Your task to perform on an android device: change notification settings in the gmail app Image 0: 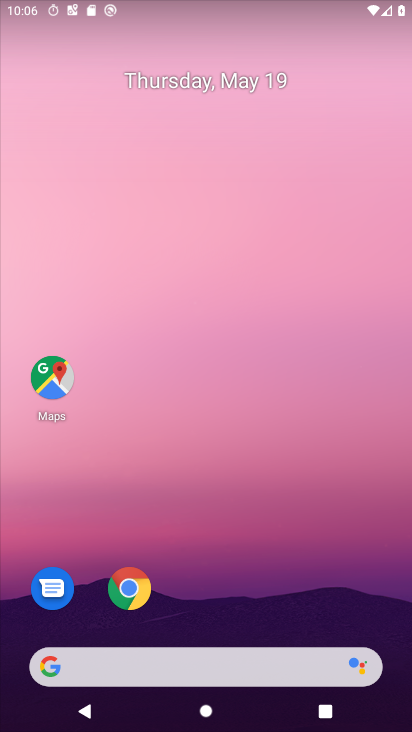
Step 0: press home button
Your task to perform on an android device: change notification settings in the gmail app Image 1: 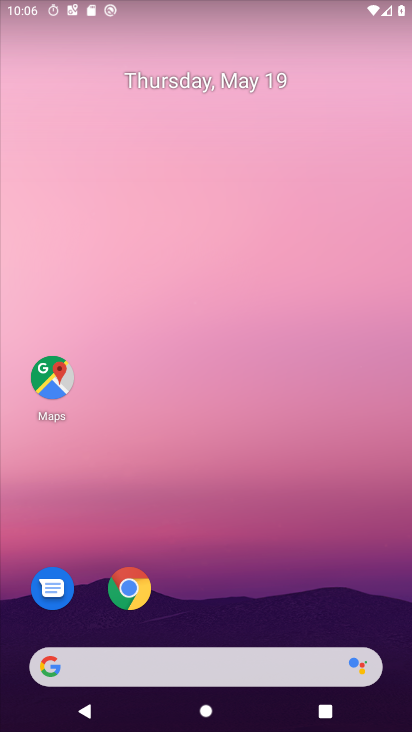
Step 1: drag from (169, 672) to (291, 142)
Your task to perform on an android device: change notification settings in the gmail app Image 2: 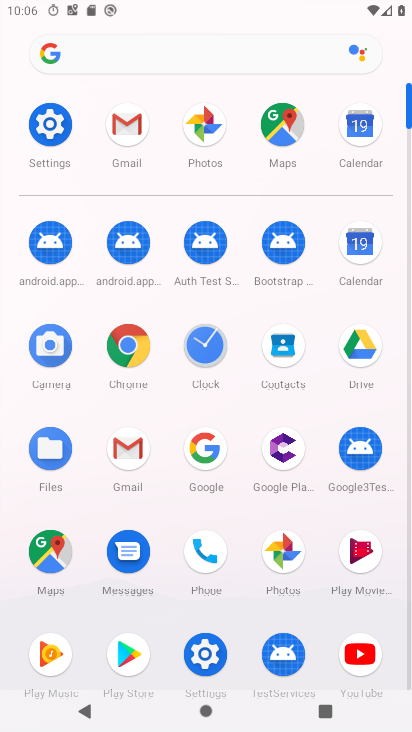
Step 2: click (134, 128)
Your task to perform on an android device: change notification settings in the gmail app Image 3: 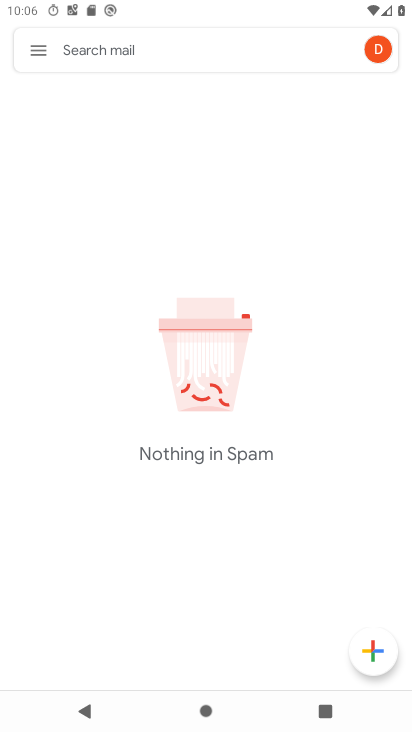
Step 3: click (45, 52)
Your task to perform on an android device: change notification settings in the gmail app Image 4: 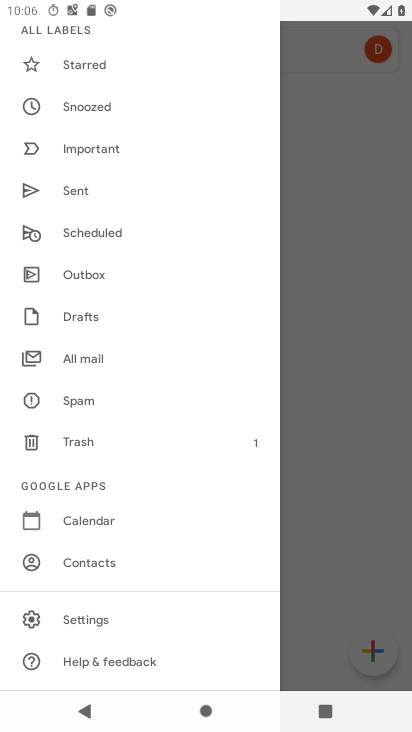
Step 4: click (110, 624)
Your task to perform on an android device: change notification settings in the gmail app Image 5: 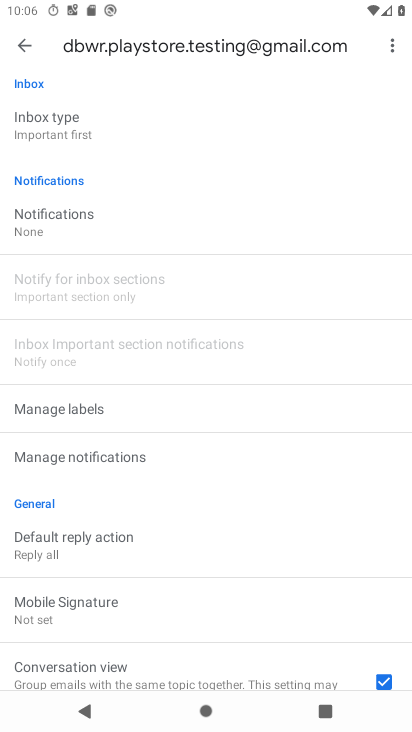
Step 5: click (89, 216)
Your task to perform on an android device: change notification settings in the gmail app Image 6: 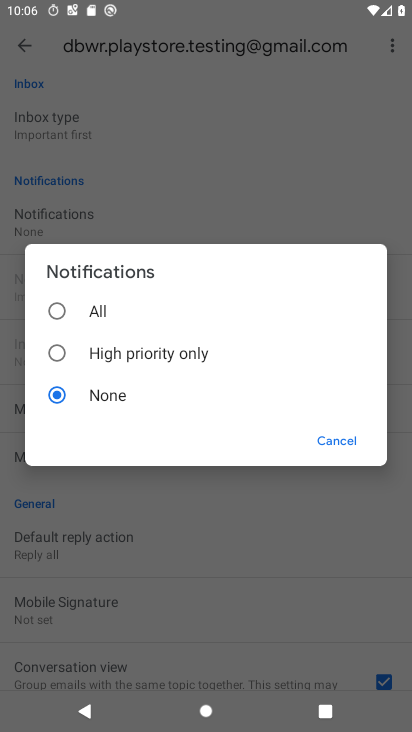
Step 6: click (57, 313)
Your task to perform on an android device: change notification settings in the gmail app Image 7: 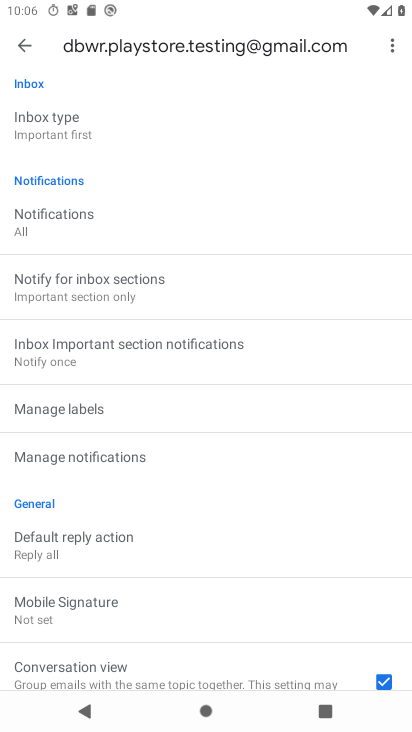
Step 7: task complete